Your task to perform on an android device: Open Google Image 0: 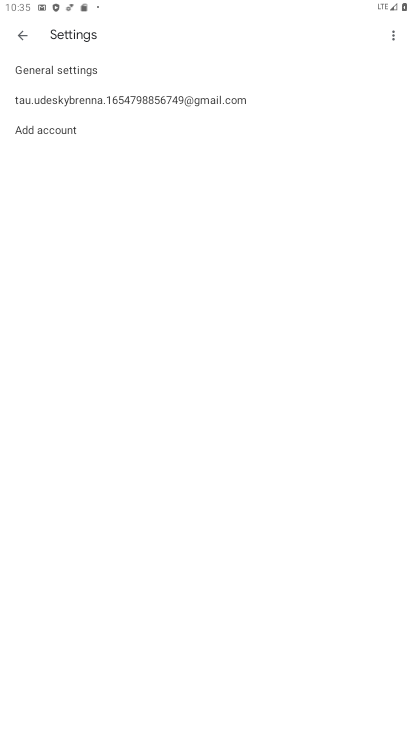
Step 0: press home button
Your task to perform on an android device: Open Google Image 1: 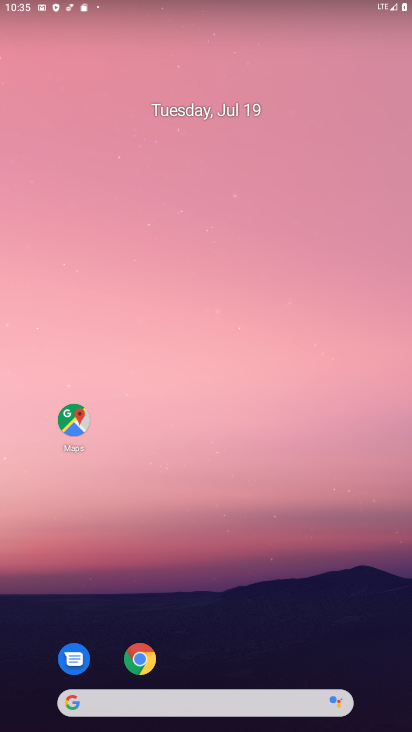
Step 1: click (206, 707)
Your task to perform on an android device: Open Google Image 2: 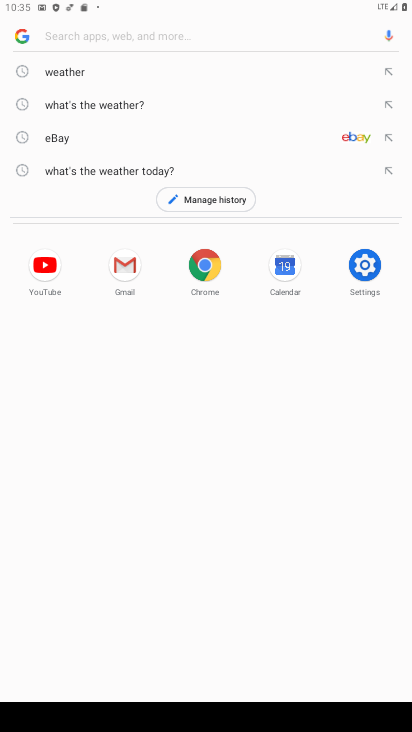
Step 2: task complete